Your task to perform on an android device: Empty the shopping cart on costco.com. Image 0: 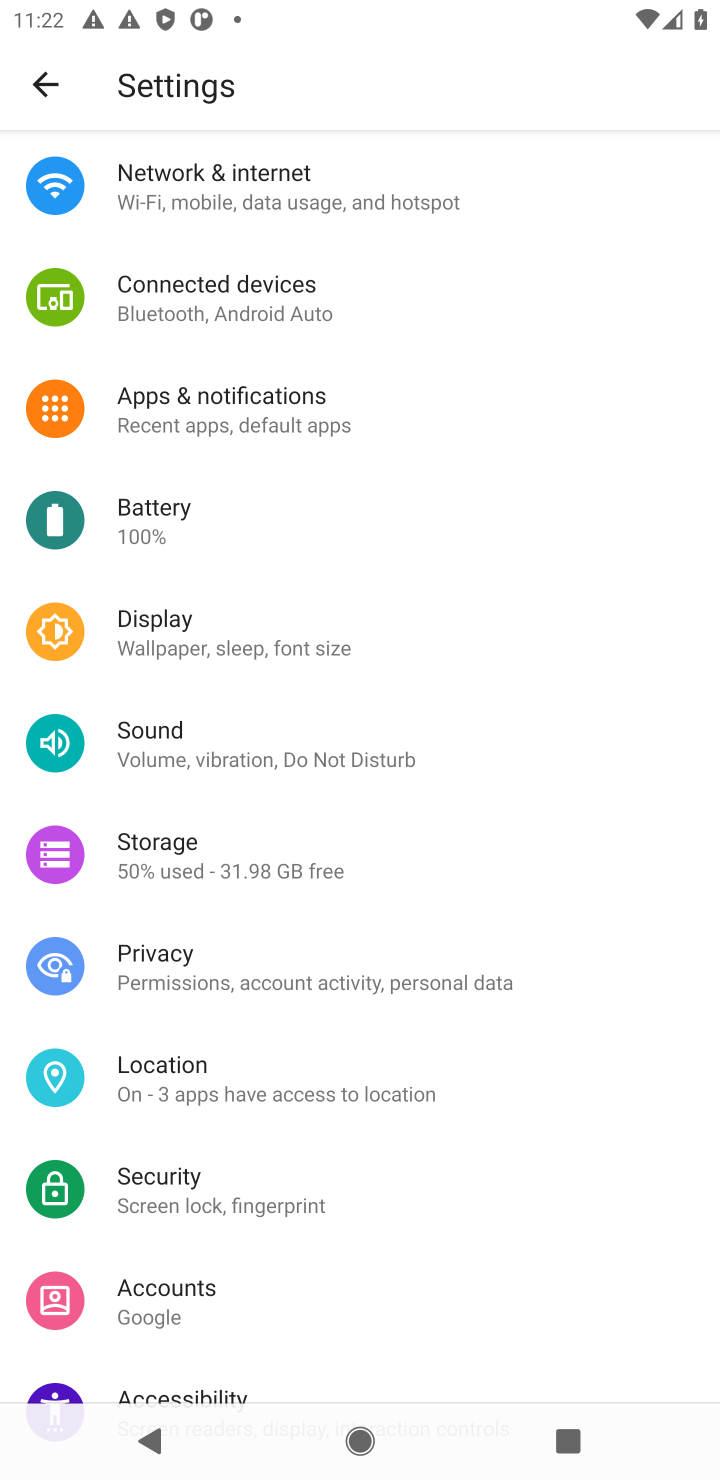
Step 0: press home button
Your task to perform on an android device: Empty the shopping cart on costco.com. Image 1: 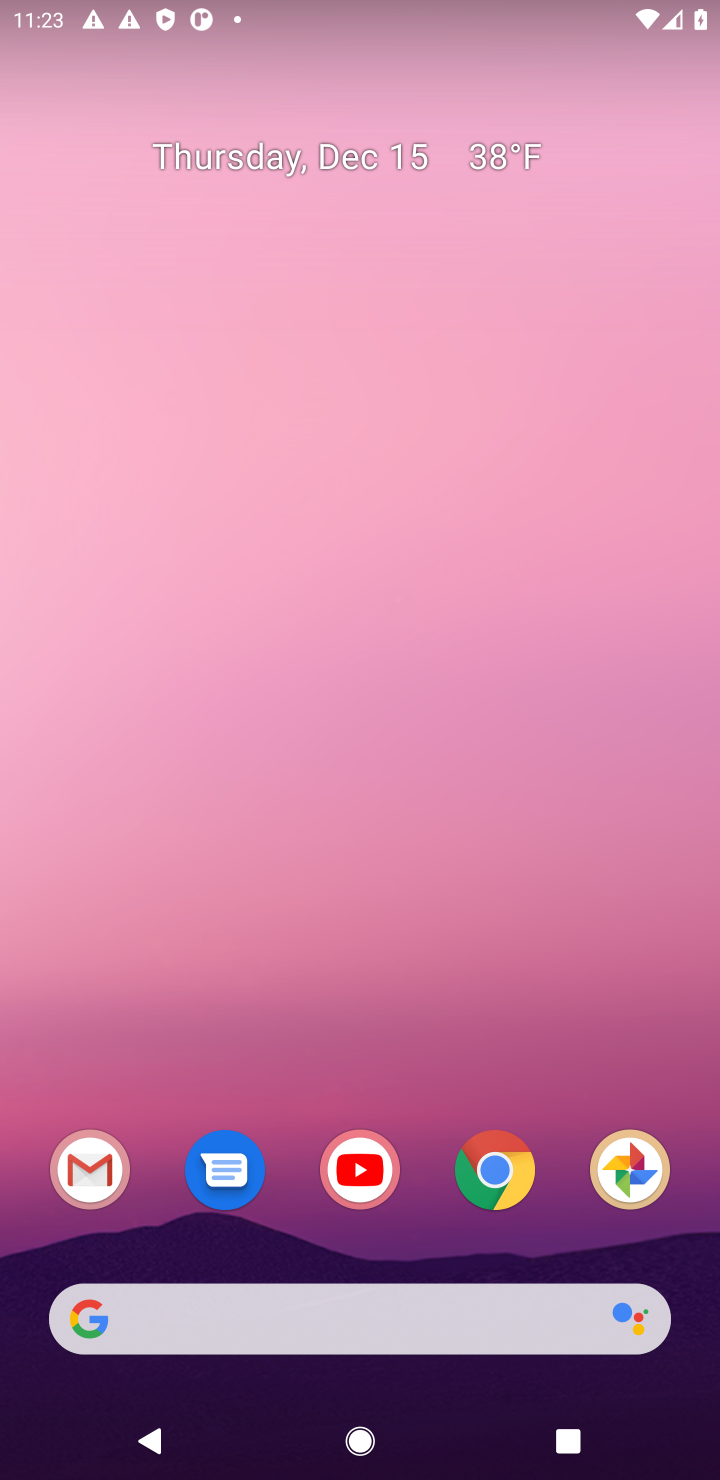
Step 1: click (507, 1172)
Your task to perform on an android device: Empty the shopping cart on costco.com. Image 2: 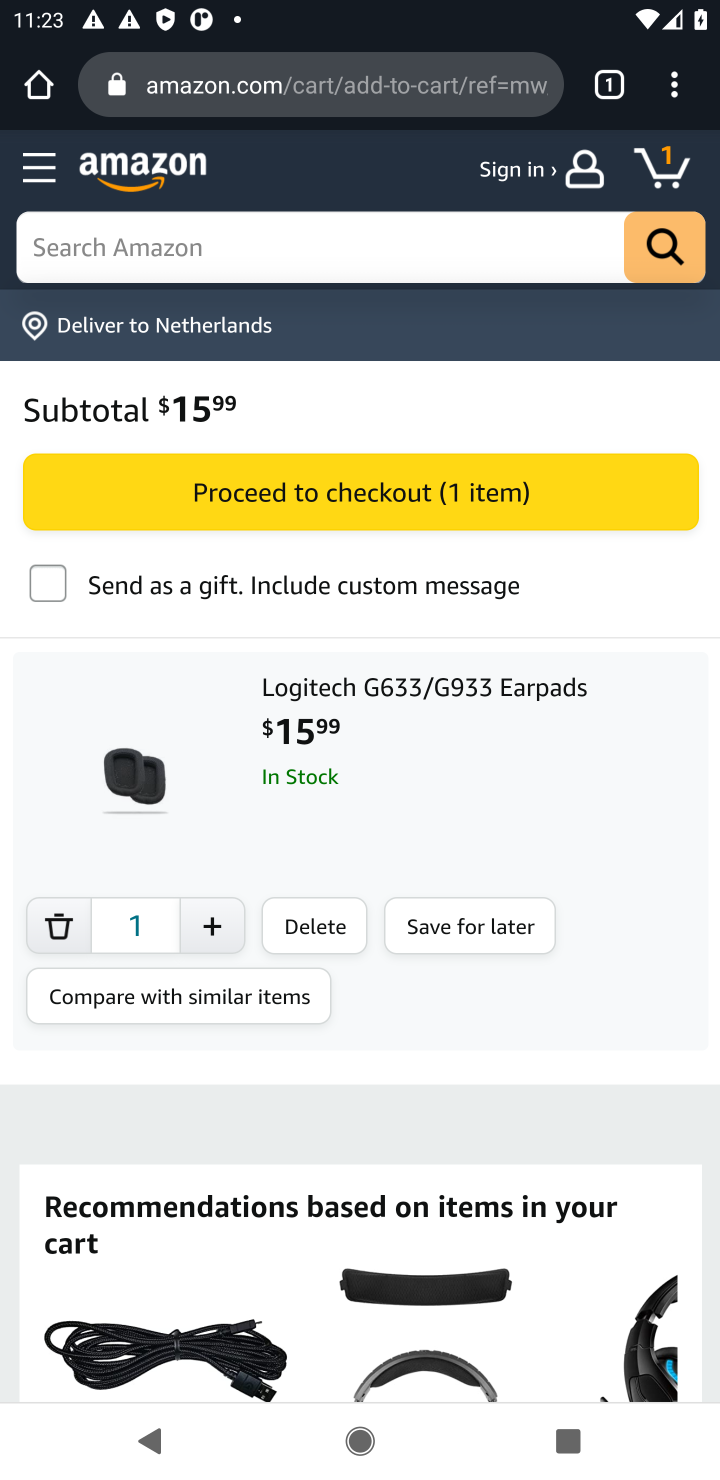
Step 2: click (227, 90)
Your task to perform on an android device: Empty the shopping cart on costco.com. Image 3: 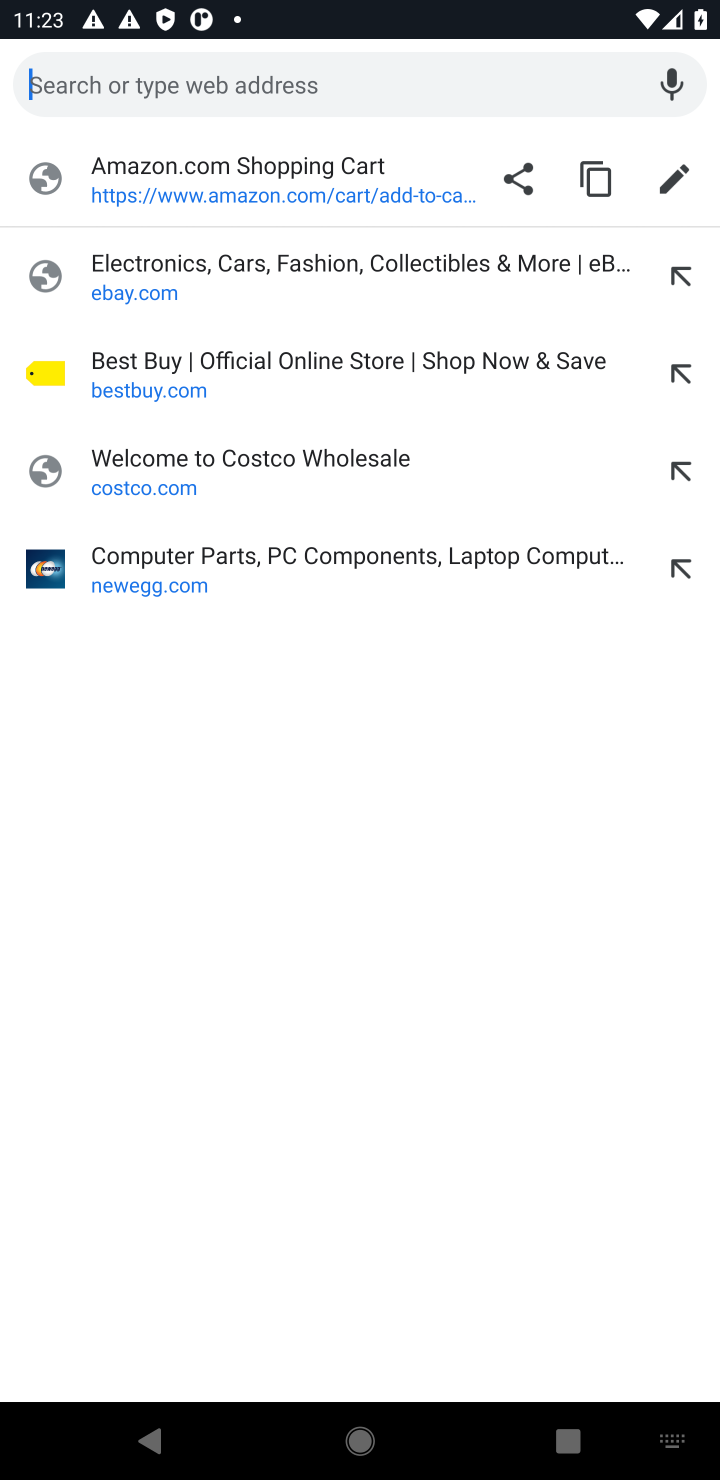
Step 3: click (129, 484)
Your task to perform on an android device: Empty the shopping cart on costco.com. Image 4: 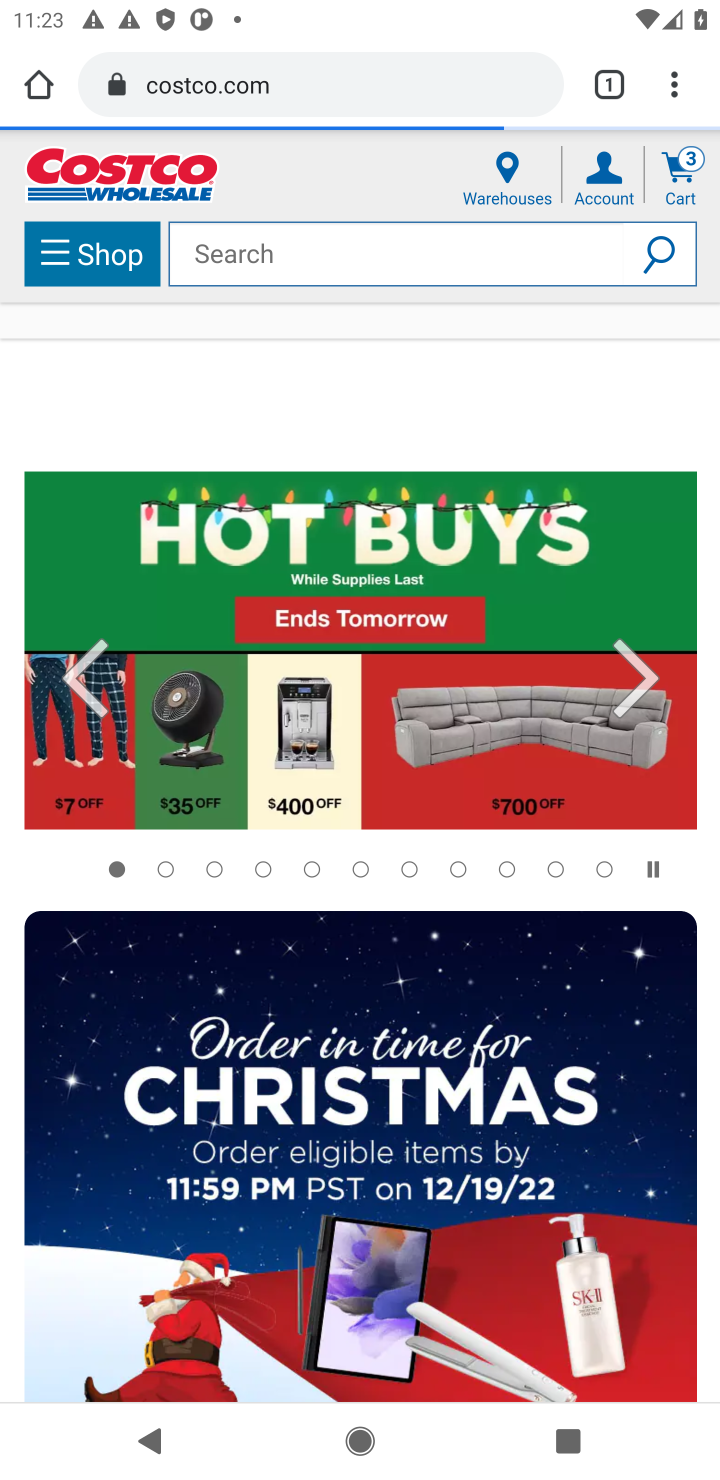
Step 4: click (676, 174)
Your task to perform on an android device: Empty the shopping cart on costco.com. Image 5: 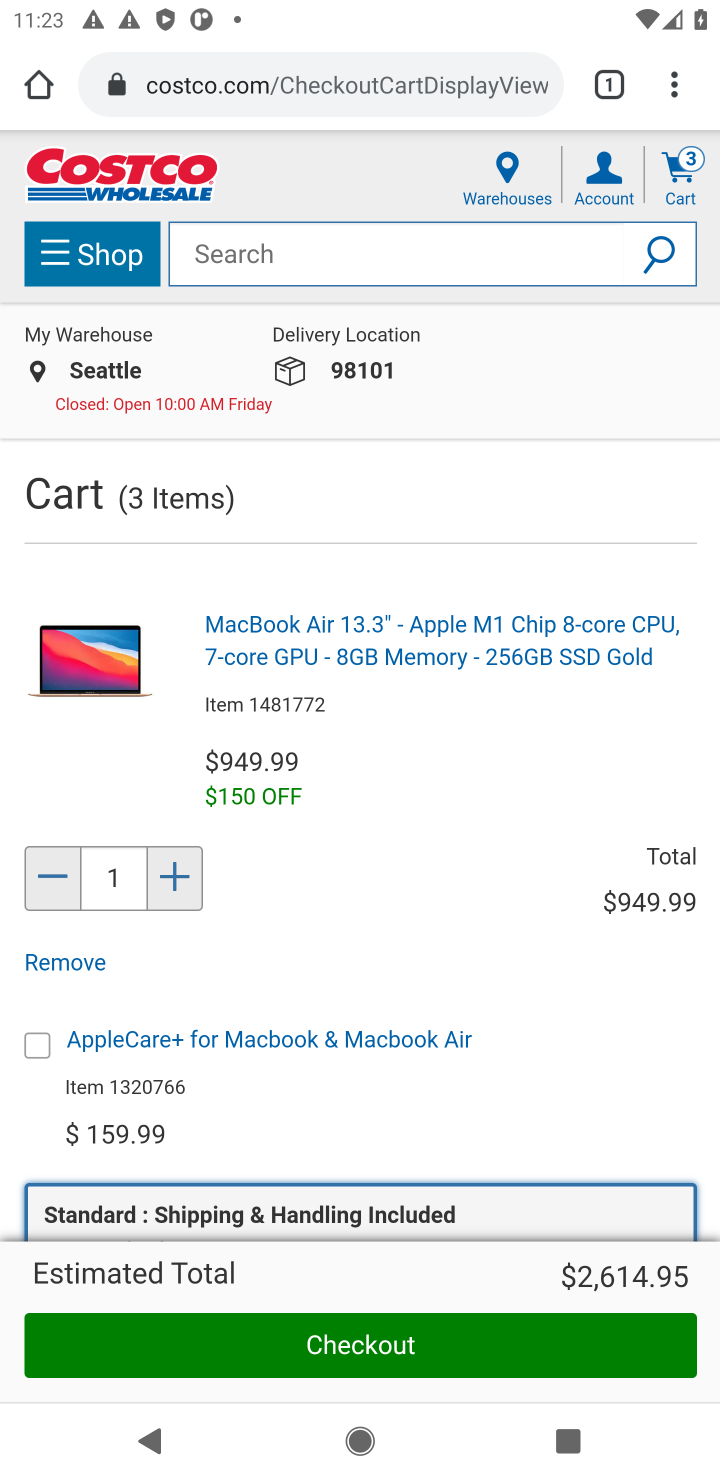
Step 5: drag from (290, 918) to (369, 518)
Your task to perform on an android device: Empty the shopping cart on costco.com. Image 6: 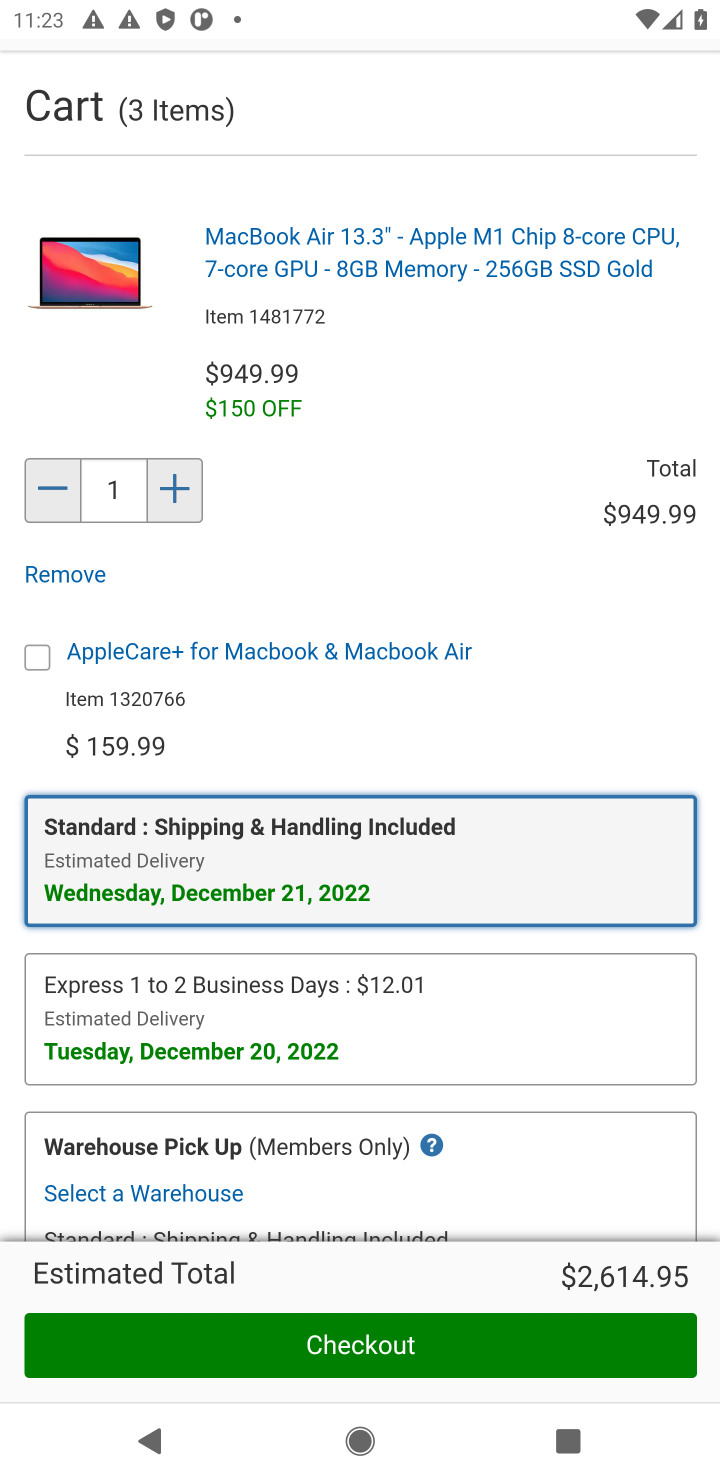
Step 6: drag from (449, 1038) to (474, 631)
Your task to perform on an android device: Empty the shopping cart on costco.com. Image 7: 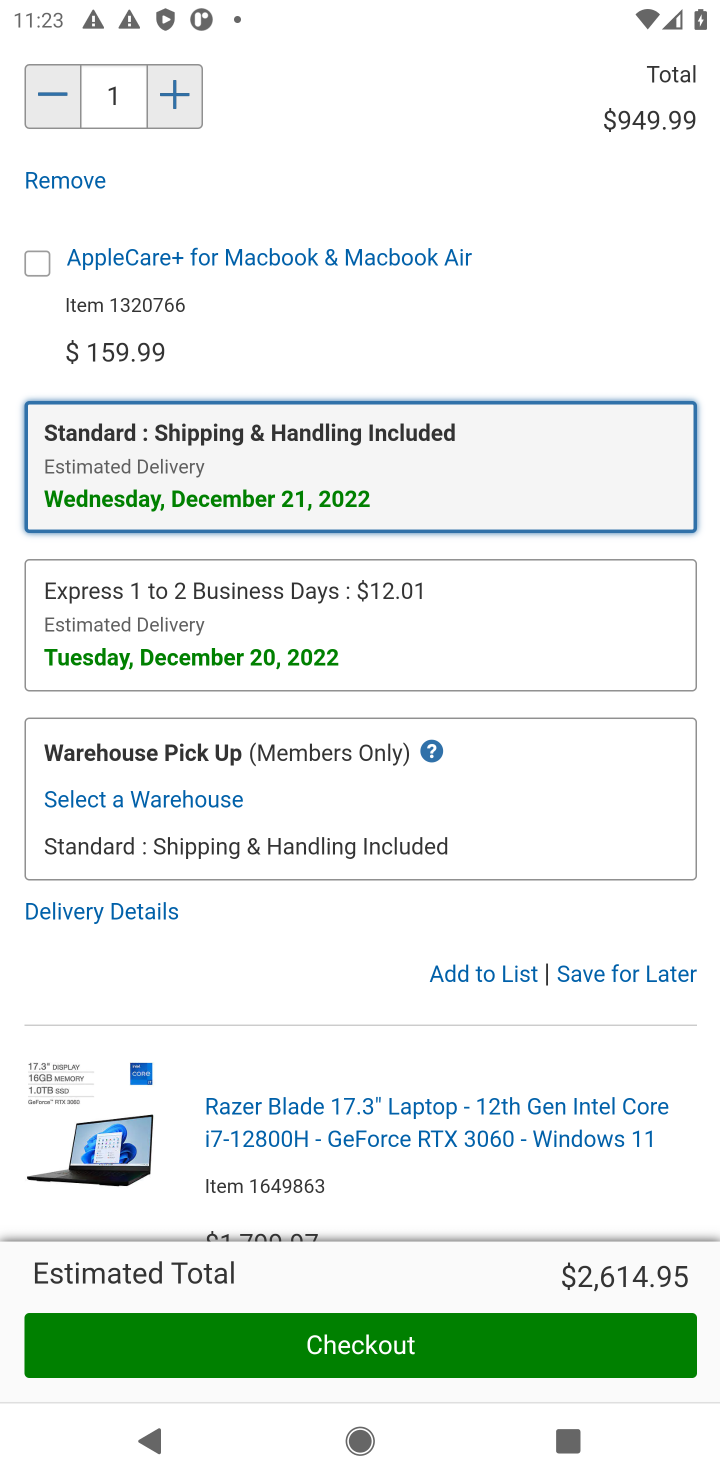
Step 7: click (612, 971)
Your task to perform on an android device: Empty the shopping cart on costco.com. Image 8: 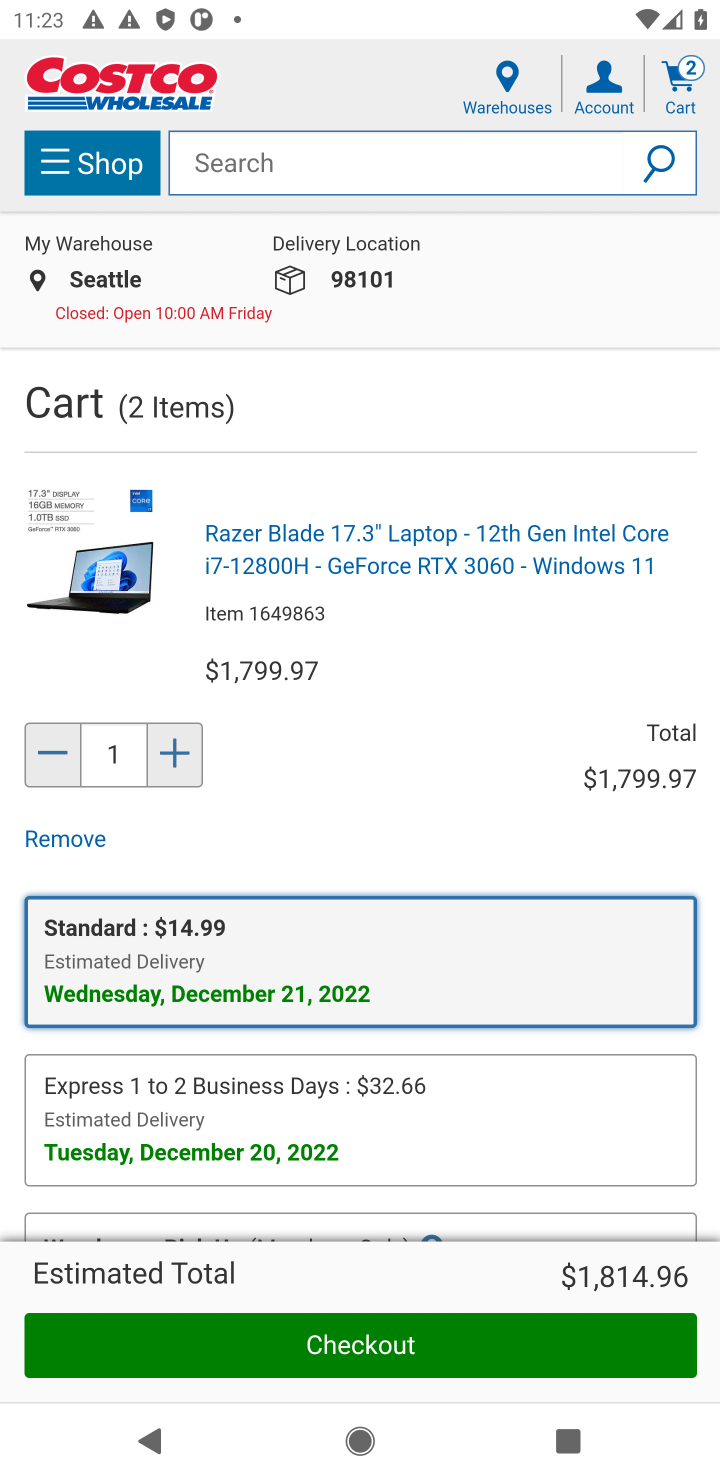
Step 8: drag from (298, 1024) to (312, 612)
Your task to perform on an android device: Empty the shopping cart on costco.com. Image 9: 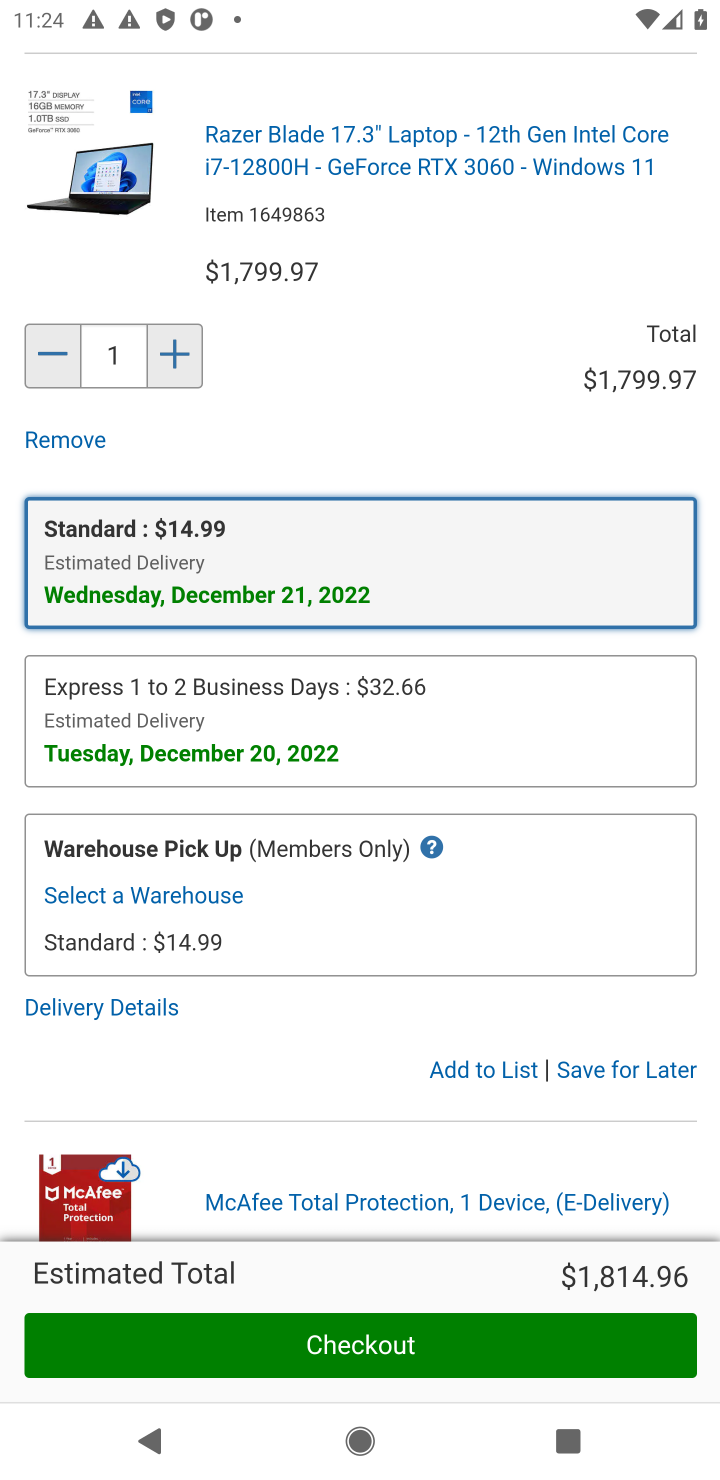
Step 9: click (610, 1070)
Your task to perform on an android device: Empty the shopping cart on costco.com. Image 10: 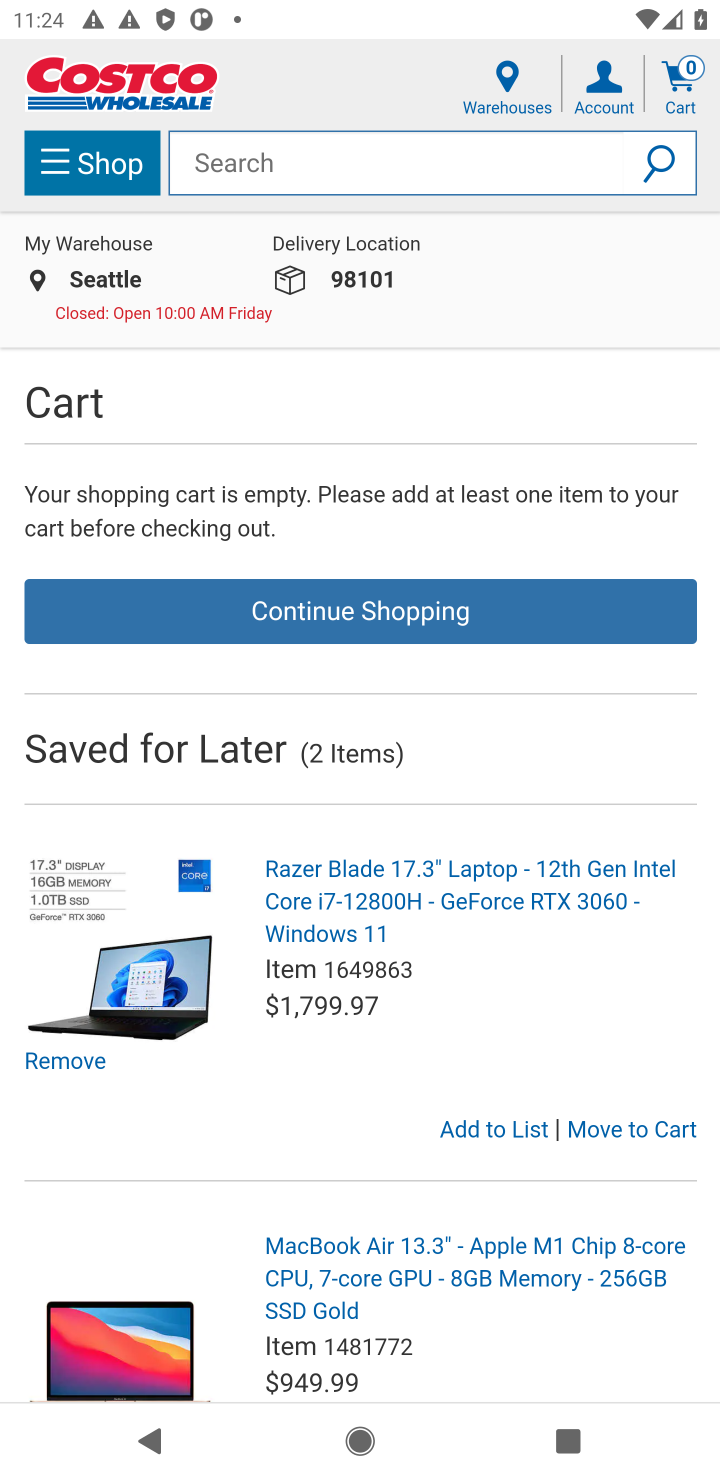
Step 10: task complete